Your task to perform on an android device: clear history in the chrome app Image 0: 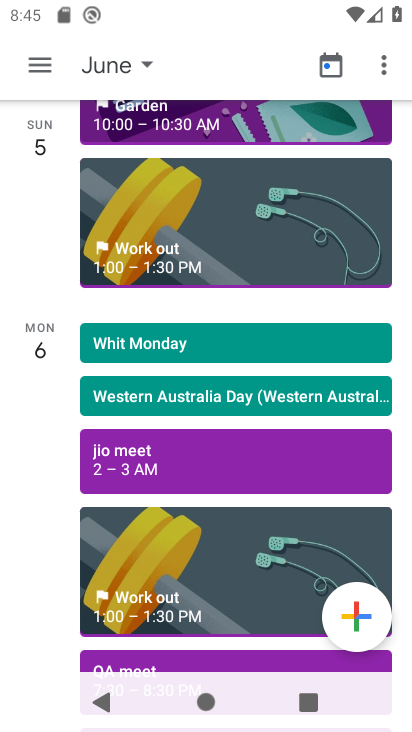
Step 0: press home button
Your task to perform on an android device: clear history in the chrome app Image 1: 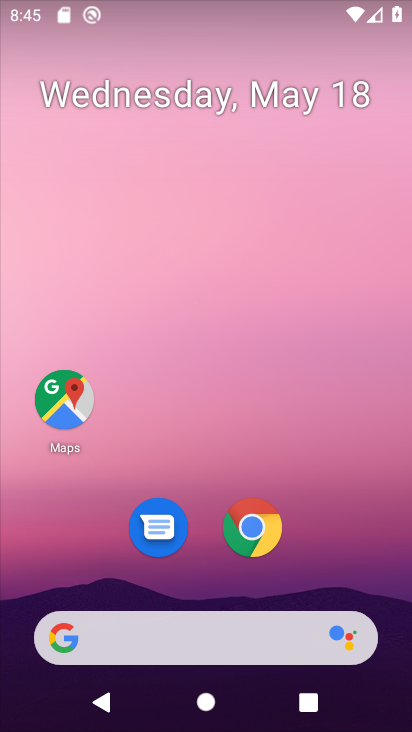
Step 1: click (254, 529)
Your task to perform on an android device: clear history in the chrome app Image 2: 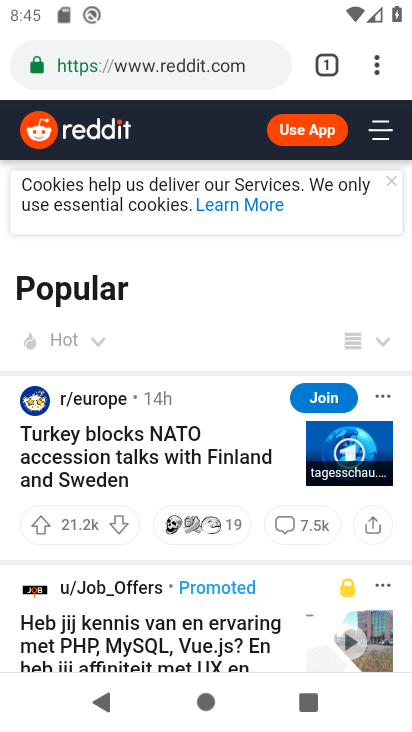
Step 2: click (372, 65)
Your task to perform on an android device: clear history in the chrome app Image 3: 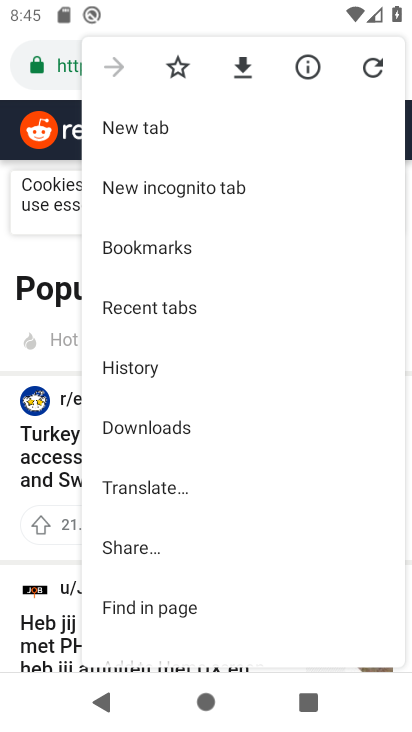
Step 3: click (131, 373)
Your task to perform on an android device: clear history in the chrome app Image 4: 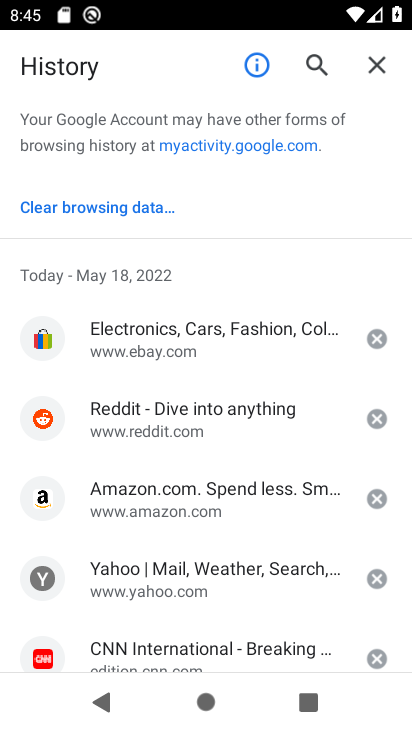
Step 4: click (109, 218)
Your task to perform on an android device: clear history in the chrome app Image 5: 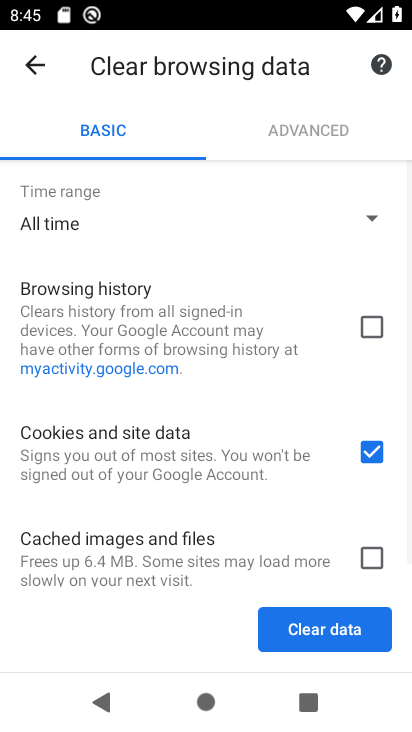
Step 5: click (380, 320)
Your task to perform on an android device: clear history in the chrome app Image 6: 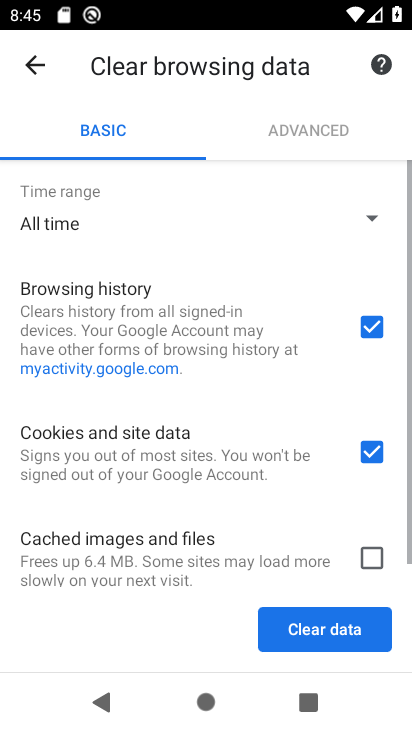
Step 6: click (370, 561)
Your task to perform on an android device: clear history in the chrome app Image 7: 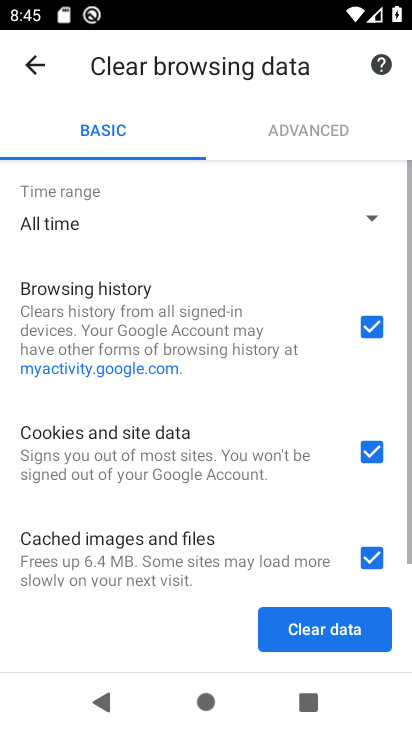
Step 7: click (318, 642)
Your task to perform on an android device: clear history in the chrome app Image 8: 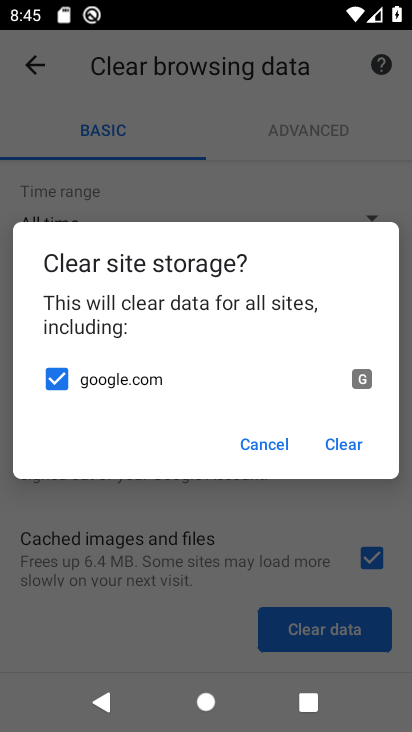
Step 8: click (348, 439)
Your task to perform on an android device: clear history in the chrome app Image 9: 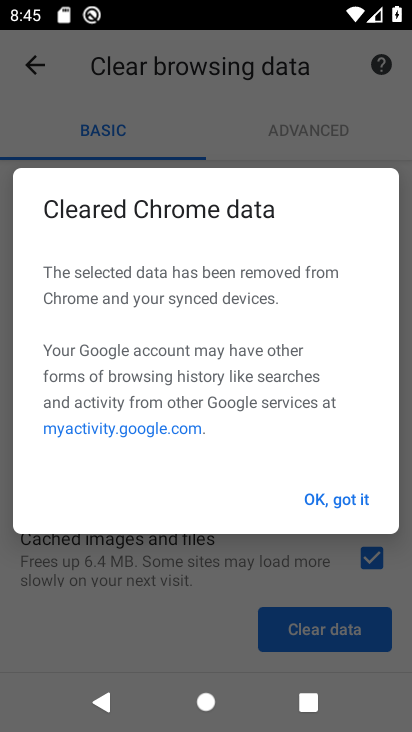
Step 9: click (337, 496)
Your task to perform on an android device: clear history in the chrome app Image 10: 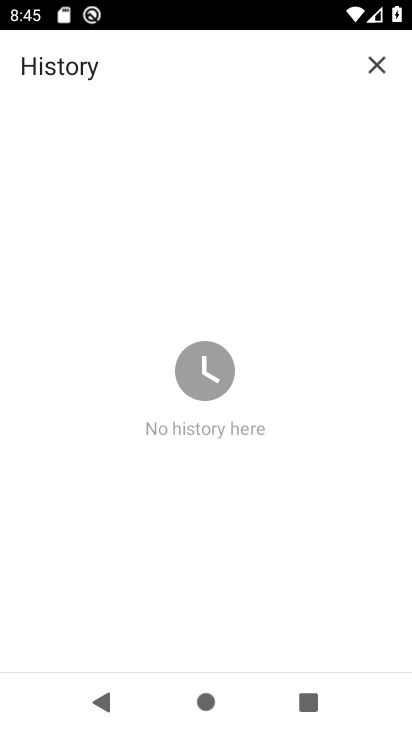
Step 10: task complete